Your task to perform on an android device: delete the emails in spam in the gmail app Image 0: 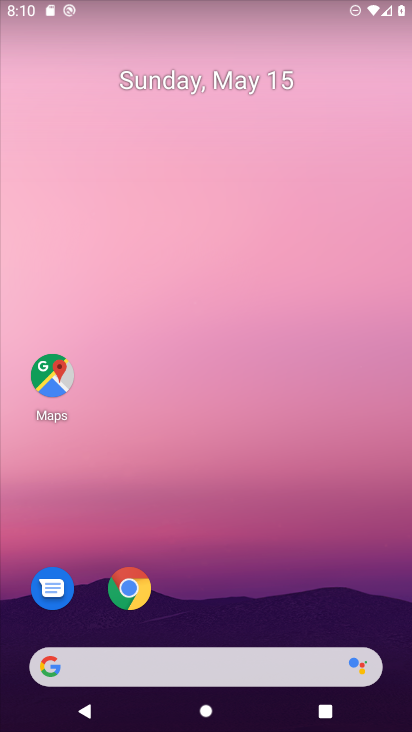
Step 0: drag from (214, 617) to (242, 116)
Your task to perform on an android device: delete the emails in spam in the gmail app Image 1: 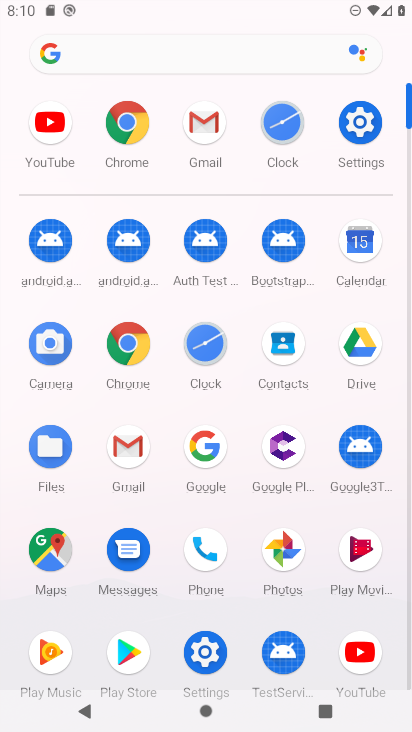
Step 1: click (201, 109)
Your task to perform on an android device: delete the emails in spam in the gmail app Image 2: 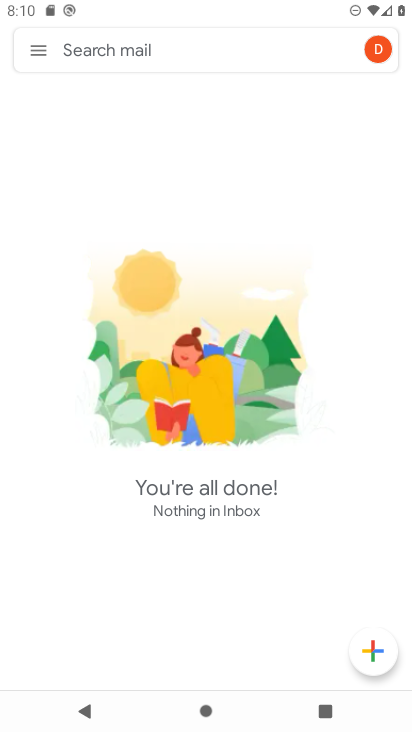
Step 2: click (33, 49)
Your task to perform on an android device: delete the emails in spam in the gmail app Image 3: 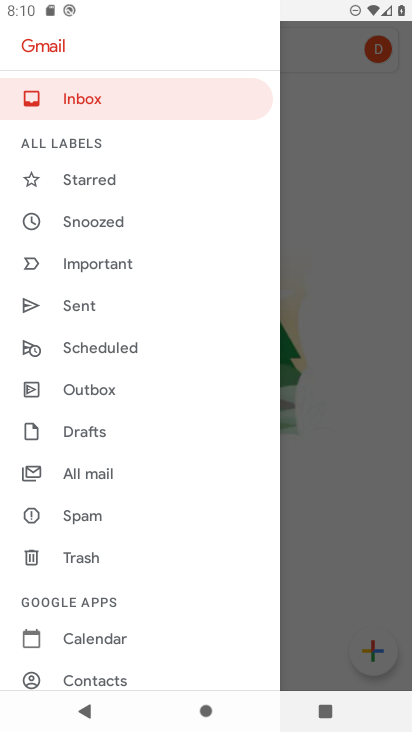
Step 3: click (105, 470)
Your task to perform on an android device: delete the emails in spam in the gmail app Image 4: 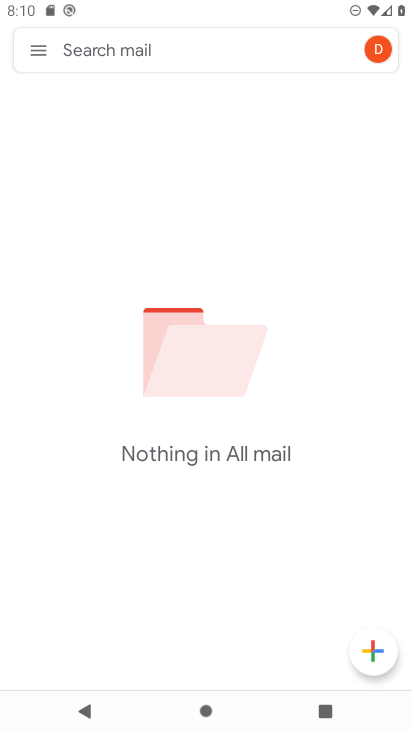
Step 4: task complete